Your task to perform on an android device: toggle wifi Image 0: 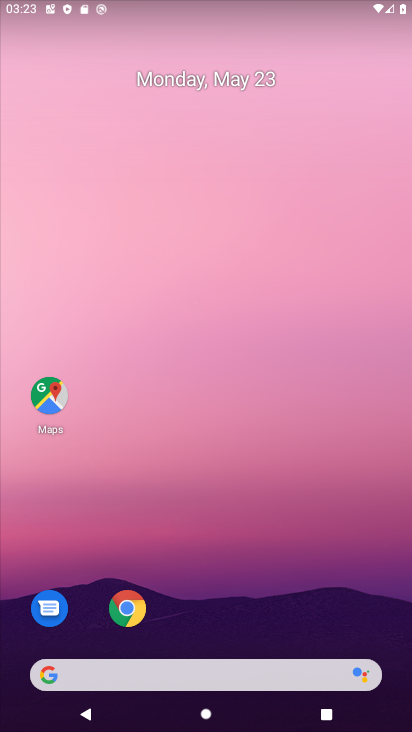
Step 0: drag from (240, 613) to (232, 123)
Your task to perform on an android device: toggle wifi Image 1: 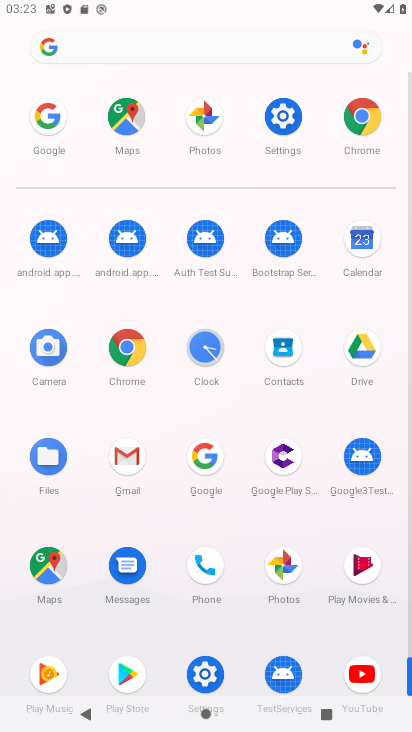
Step 1: click (283, 117)
Your task to perform on an android device: toggle wifi Image 2: 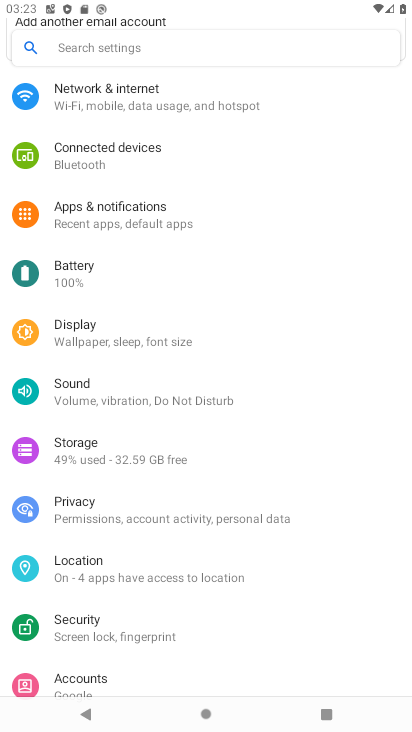
Step 2: drag from (197, 241) to (183, 337)
Your task to perform on an android device: toggle wifi Image 3: 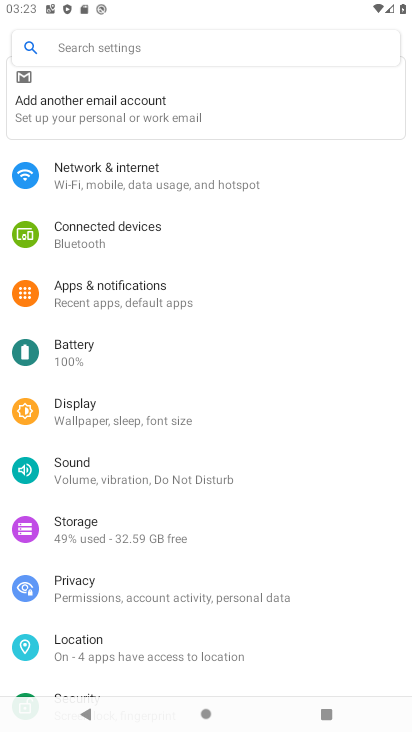
Step 3: click (153, 189)
Your task to perform on an android device: toggle wifi Image 4: 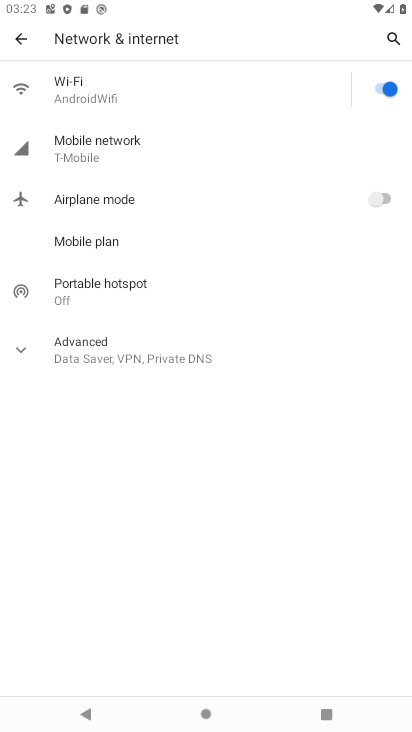
Step 4: click (394, 95)
Your task to perform on an android device: toggle wifi Image 5: 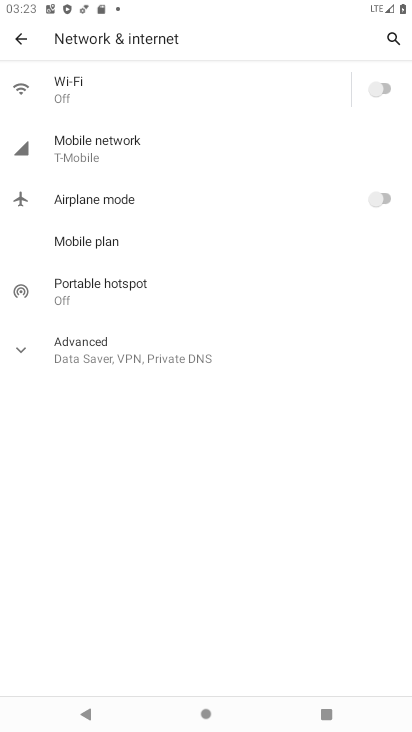
Step 5: task complete